Your task to perform on an android device: allow notifications from all sites in the chrome app Image 0: 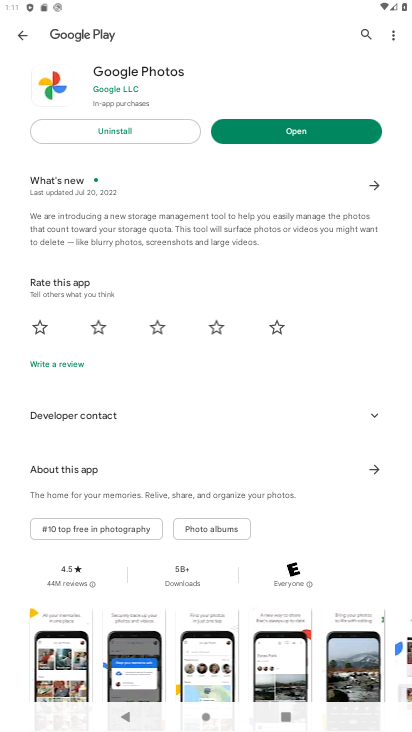
Step 0: press home button
Your task to perform on an android device: allow notifications from all sites in the chrome app Image 1: 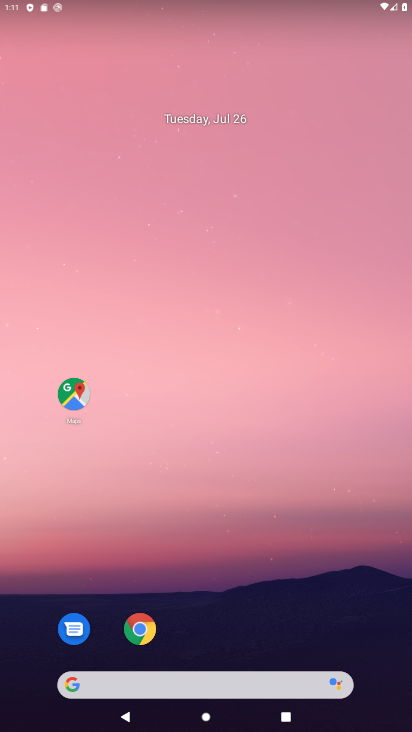
Step 1: click (130, 624)
Your task to perform on an android device: allow notifications from all sites in the chrome app Image 2: 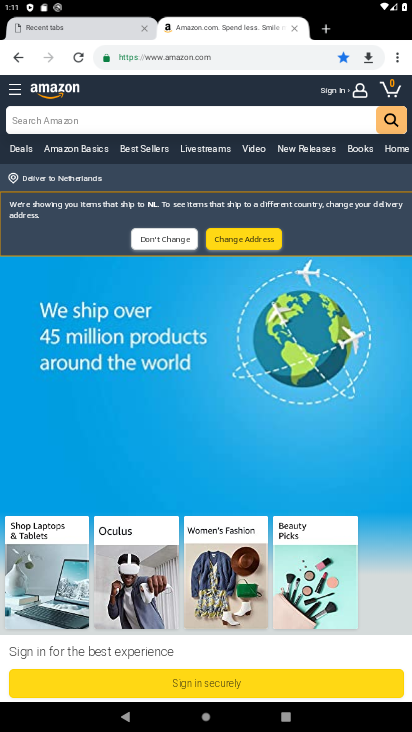
Step 2: press home button
Your task to perform on an android device: allow notifications from all sites in the chrome app Image 3: 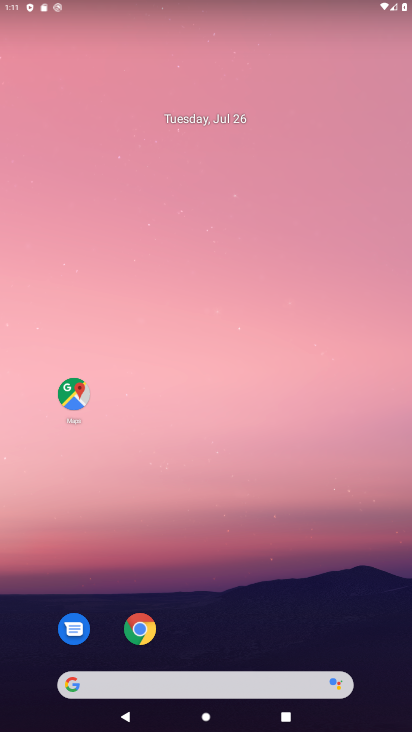
Step 3: click (143, 630)
Your task to perform on an android device: allow notifications from all sites in the chrome app Image 4: 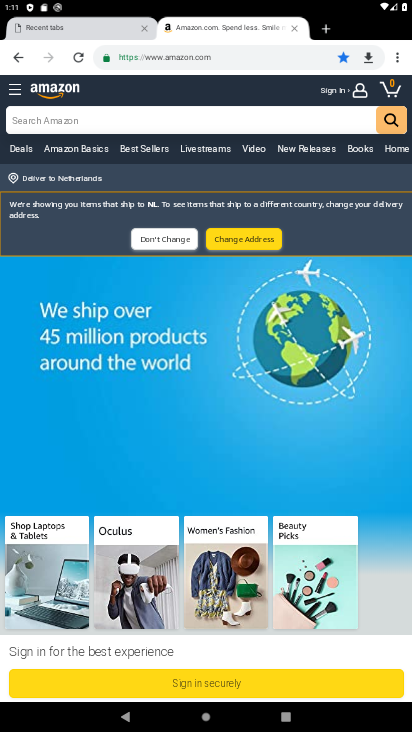
Step 4: click (394, 51)
Your task to perform on an android device: allow notifications from all sites in the chrome app Image 5: 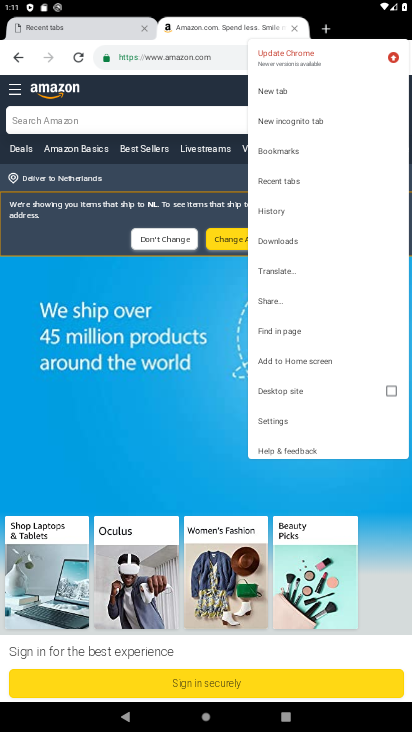
Step 5: click (263, 413)
Your task to perform on an android device: allow notifications from all sites in the chrome app Image 6: 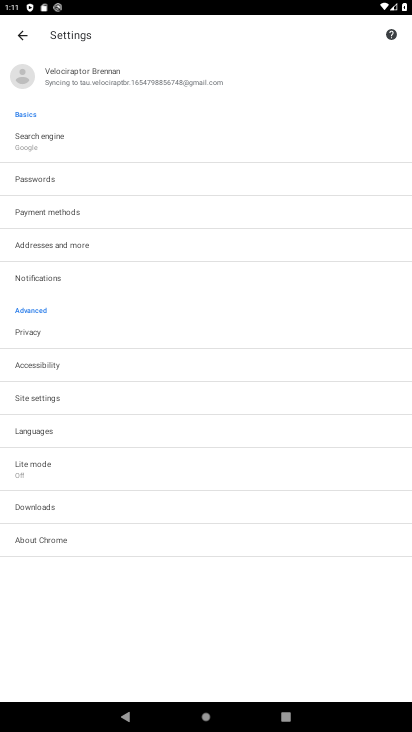
Step 6: click (56, 405)
Your task to perform on an android device: allow notifications from all sites in the chrome app Image 7: 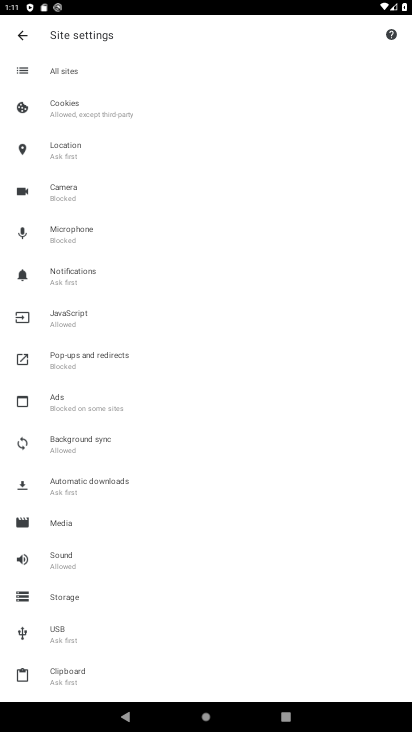
Step 7: click (75, 149)
Your task to perform on an android device: allow notifications from all sites in the chrome app Image 8: 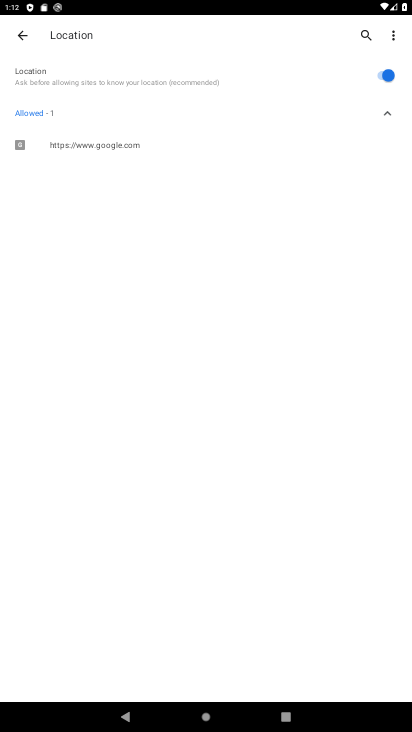
Step 8: click (19, 34)
Your task to perform on an android device: allow notifications from all sites in the chrome app Image 9: 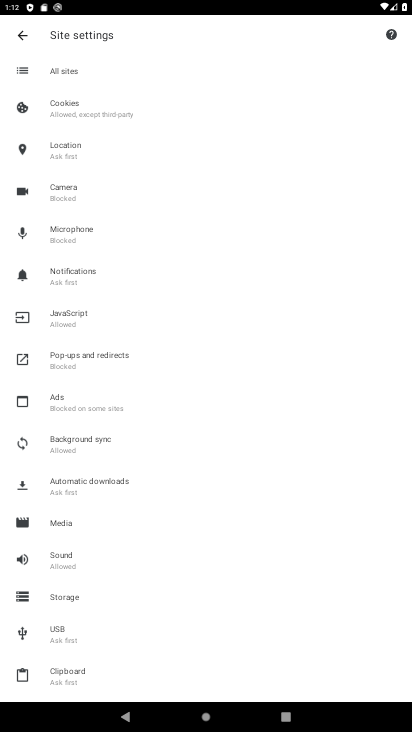
Step 9: click (63, 281)
Your task to perform on an android device: allow notifications from all sites in the chrome app Image 10: 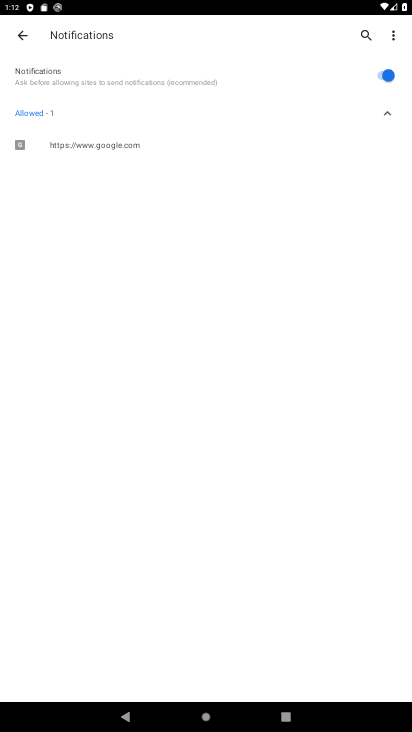
Step 10: task complete